Your task to perform on an android device: turn on improve location accuracy Image 0: 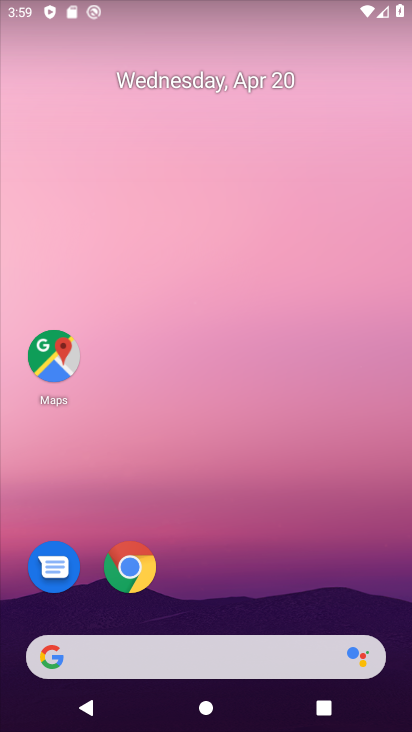
Step 0: drag from (298, 504) to (396, 233)
Your task to perform on an android device: turn on improve location accuracy Image 1: 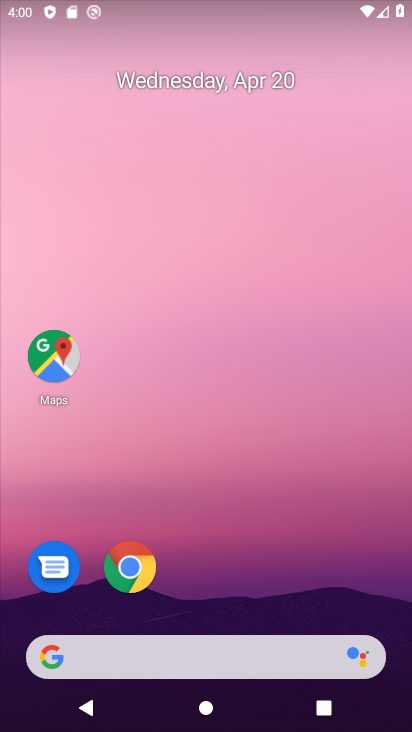
Step 1: drag from (207, 512) to (292, 97)
Your task to perform on an android device: turn on improve location accuracy Image 2: 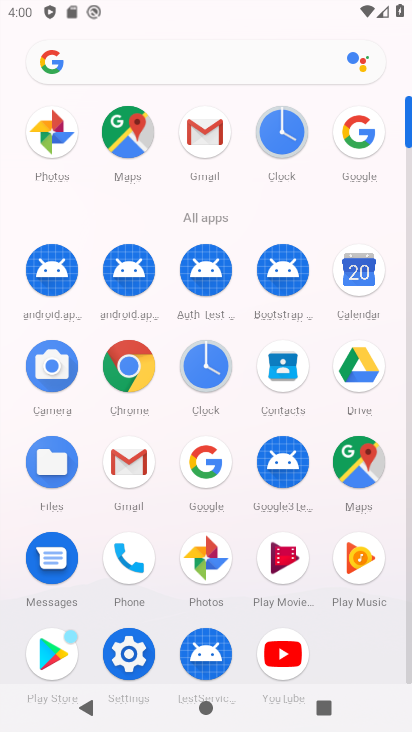
Step 2: click (291, 187)
Your task to perform on an android device: turn on improve location accuracy Image 3: 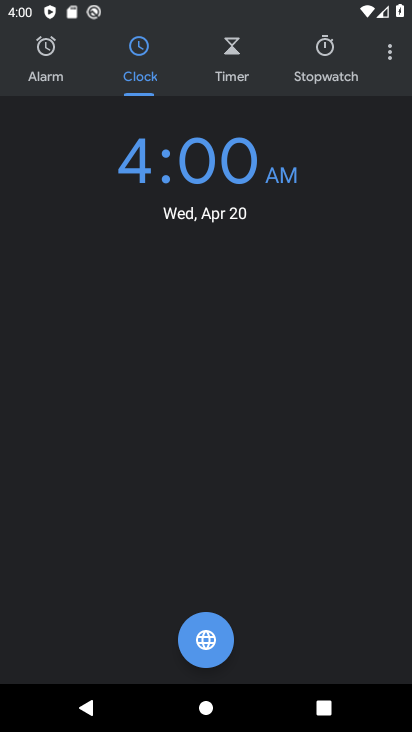
Step 3: press back button
Your task to perform on an android device: turn on improve location accuracy Image 4: 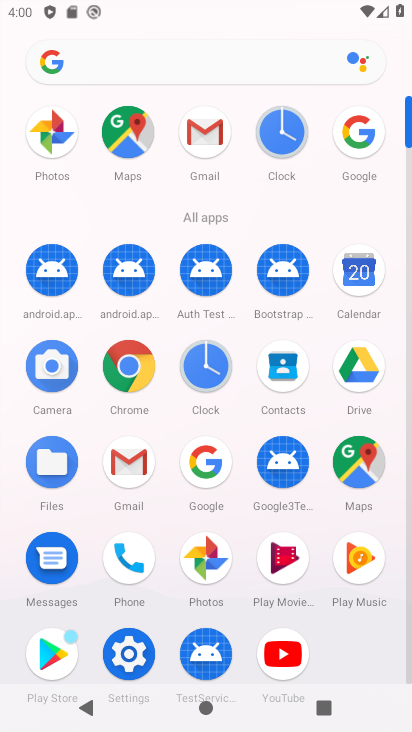
Step 4: click (147, 651)
Your task to perform on an android device: turn on improve location accuracy Image 5: 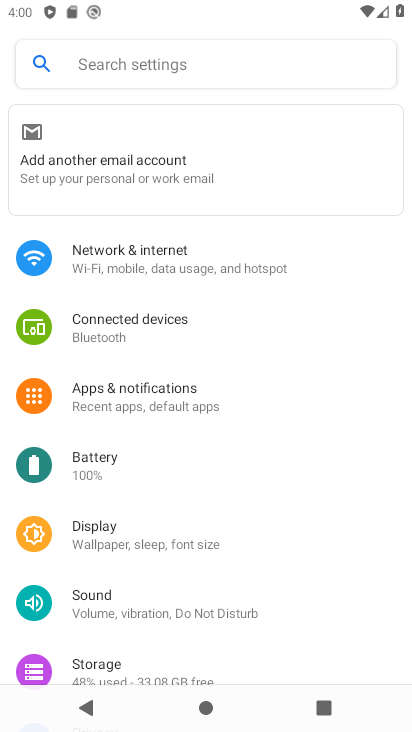
Step 5: drag from (206, 578) to (286, 248)
Your task to perform on an android device: turn on improve location accuracy Image 6: 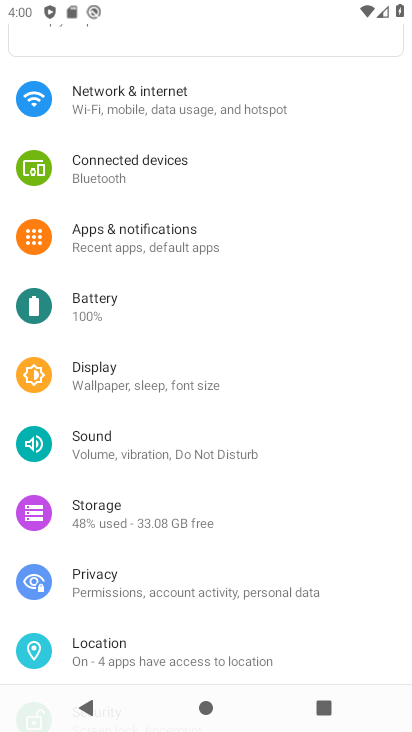
Step 6: click (130, 645)
Your task to perform on an android device: turn on improve location accuracy Image 7: 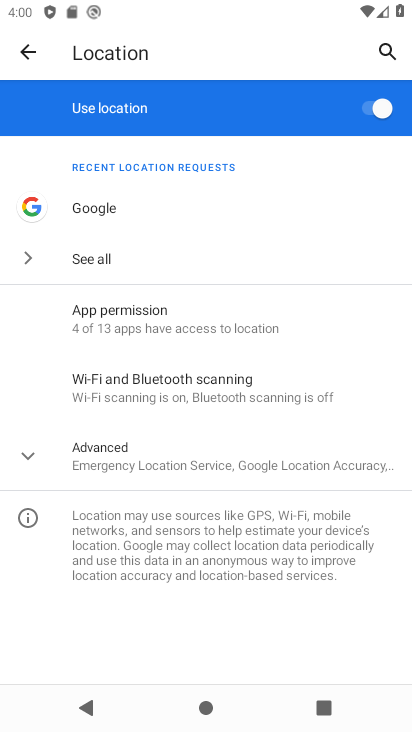
Step 7: click (216, 466)
Your task to perform on an android device: turn on improve location accuracy Image 8: 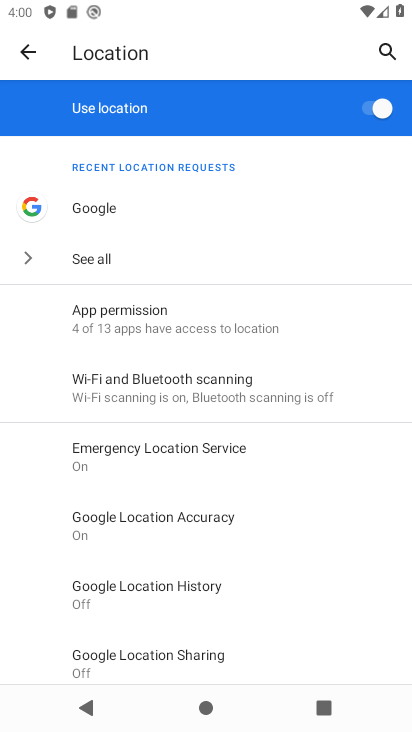
Step 8: click (240, 525)
Your task to perform on an android device: turn on improve location accuracy Image 9: 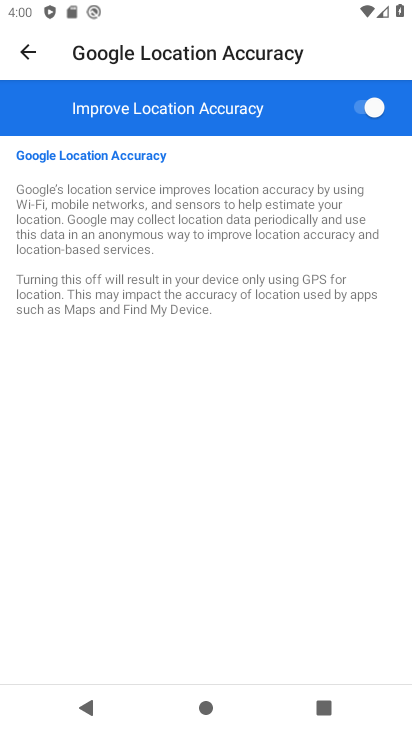
Step 9: task complete